Your task to perform on an android device: See recent photos Image 0: 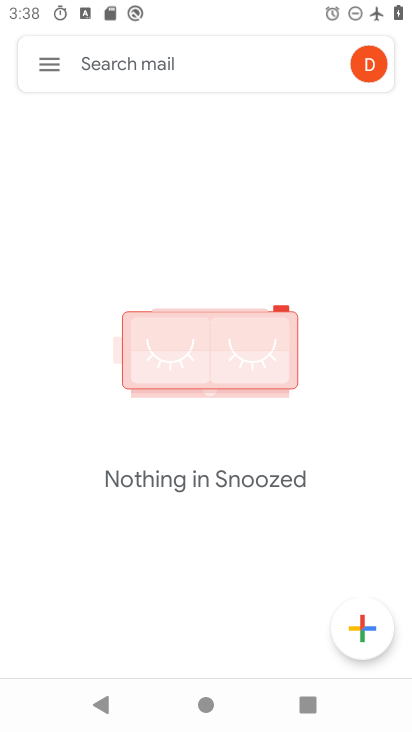
Step 0: press home button
Your task to perform on an android device: See recent photos Image 1: 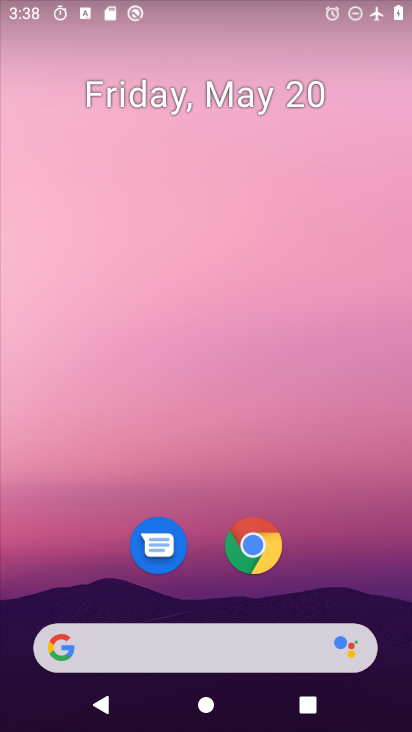
Step 1: drag from (363, 654) to (362, 40)
Your task to perform on an android device: See recent photos Image 2: 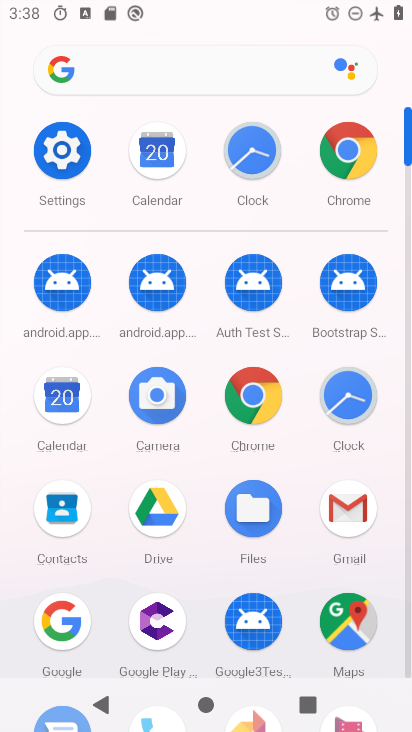
Step 2: drag from (275, 559) to (278, 26)
Your task to perform on an android device: See recent photos Image 3: 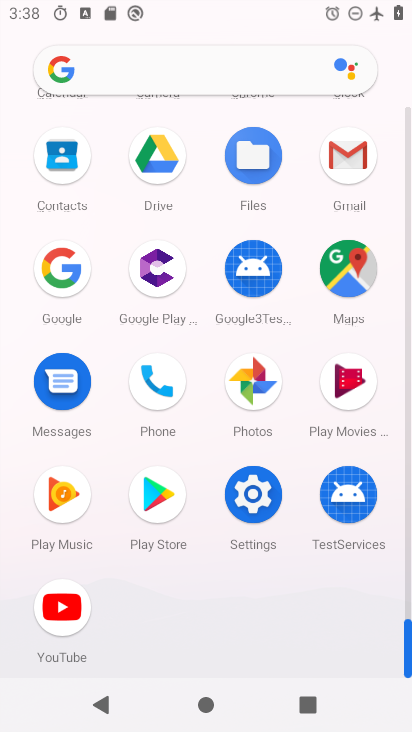
Step 3: click (265, 396)
Your task to perform on an android device: See recent photos Image 4: 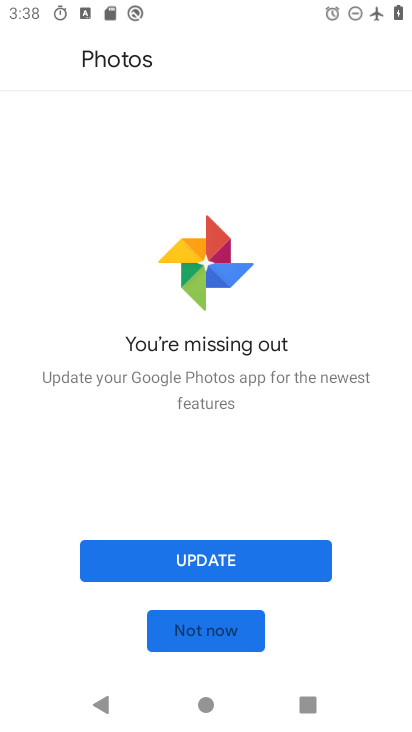
Step 4: drag from (291, 561) to (223, 561)
Your task to perform on an android device: See recent photos Image 5: 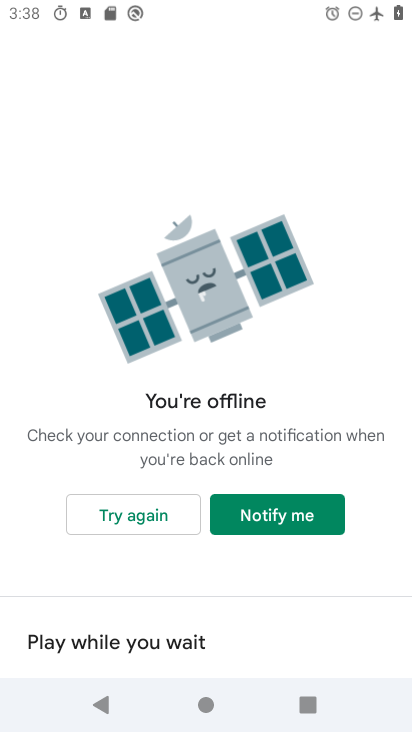
Step 5: drag from (371, 3) to (261, 613)
Your task to perform on an android device: See recent photos Image 6: 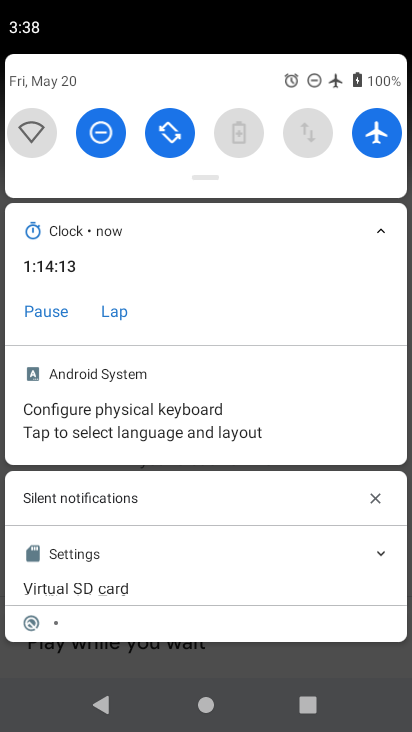
Step 6: drag from (257, 157) to (326, 593)
Your task to perform on an android device: See recent photos Image 7: 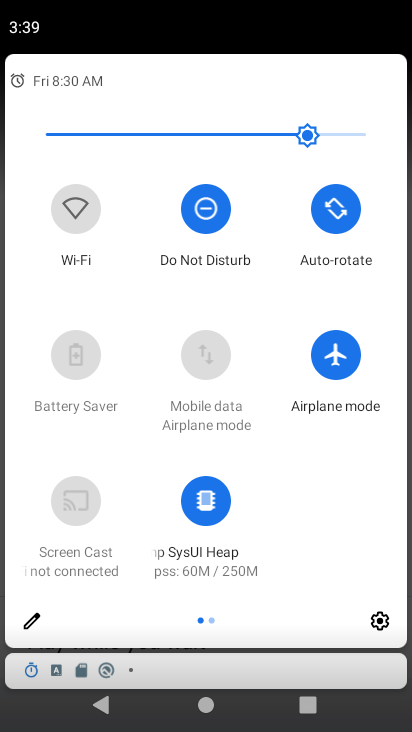
Step 7: click (333, 350)
Your task to perform on an android device: See recent photos Image 8: 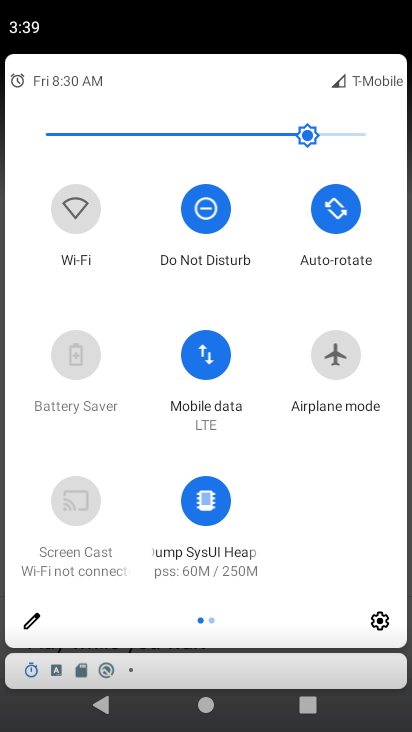
Step 8: task complete